Your task to perform on an android device: Open calendar and show me the fourth week of next month Image 0: 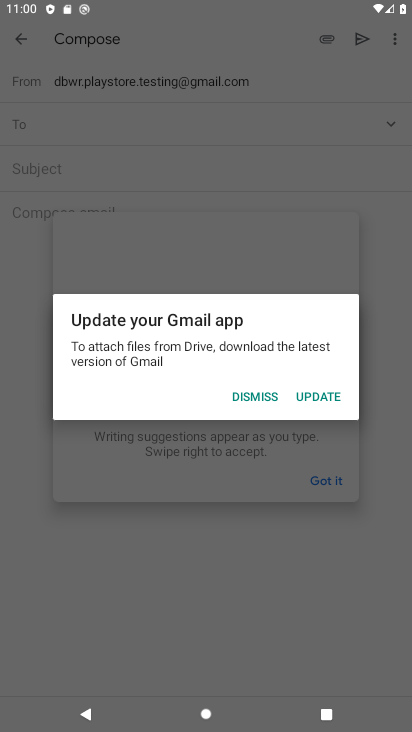
Step 0: press home button
Your task to perform on an android device: Open calendar and show me the fourth week of next month Image 1: 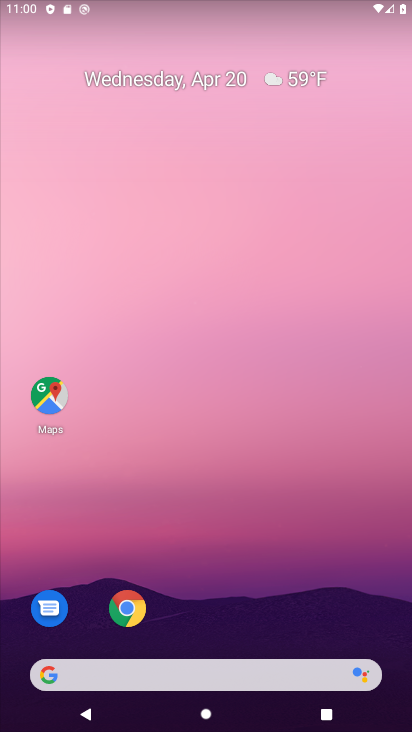
Step 1: drag from (201, 606) to (238, 134)
Your task to perform on an android device: Open calendar and show me the fourth week of next month Image 2: 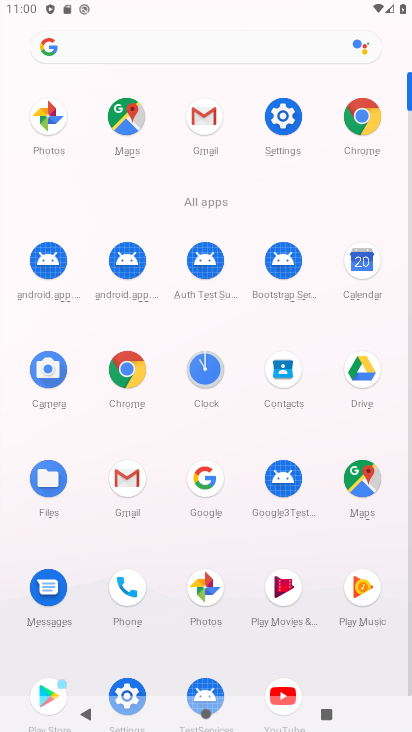
Step 2: click (363, 257)
Your task to perform on an android device: Open calendar and show me the fourth week of next month Image 3: 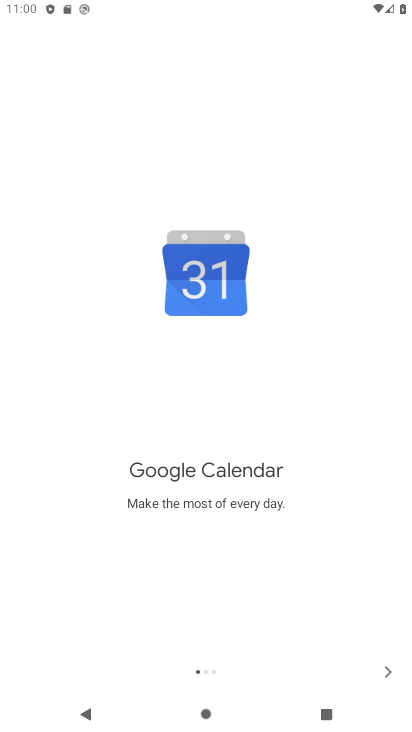
Step 3: click (380, 662)
Your task to perform on an android device: Open calendar and show me the fourth week of next month Image 4: 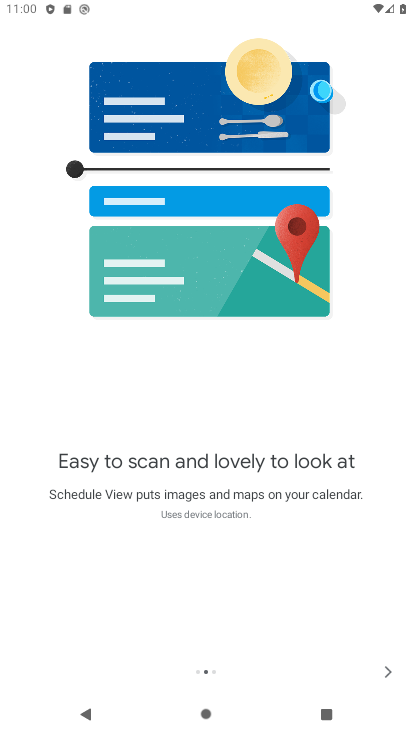
Step 4: click (380, 662)
Your task to perform on an android device: Open calendar and show me the fourth week of next month Image 5: 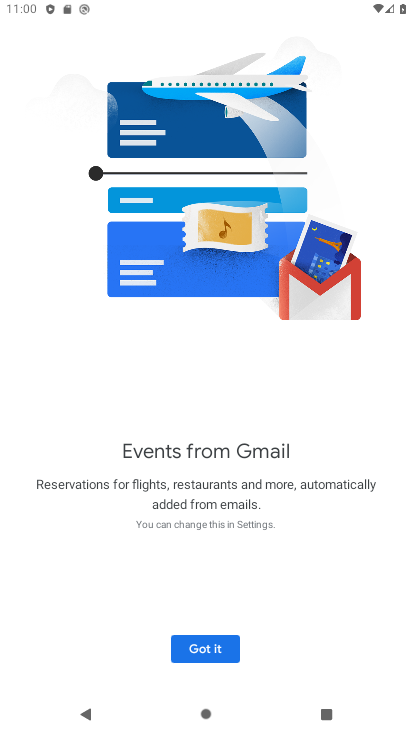
Step 5: click (218, 645)
Your task to perform on an android device: Open calendar and show me the fourth week of next month Image 6: 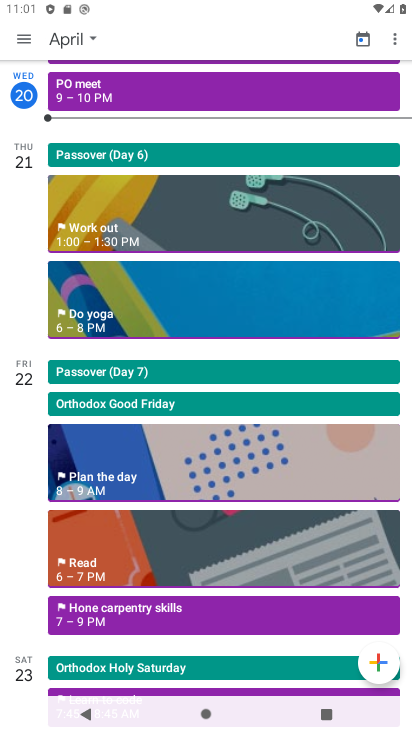
Step 6: click (81, 37)
Your task to perform on an android device: Open calendar and show me the fourth week of next month Image 7: 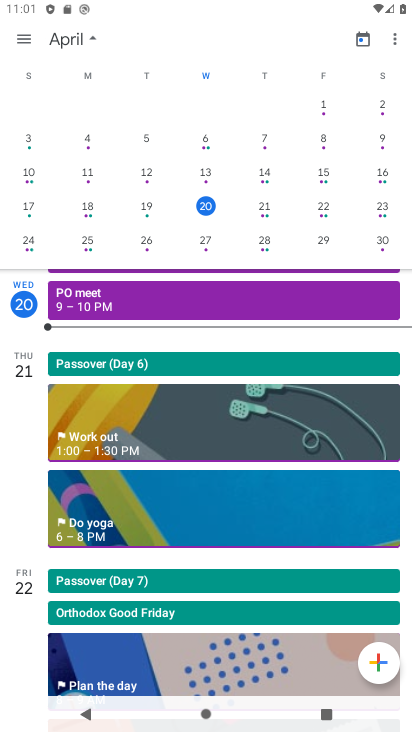
Step 7: drag from (391, 253) to (28, 198)
Your task to perform on an android device: Open calendar and show me the fourth week of next month Image 8: 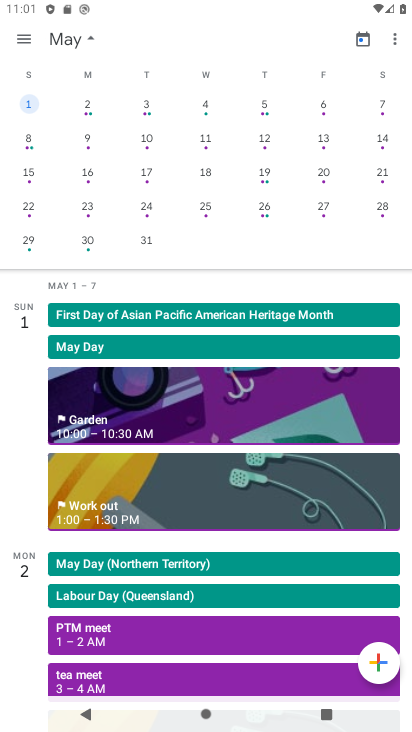
Step 8: click (144, 209)
Your task to perform on an android device: Open calendar and show me the fourth week of next month Image 9: 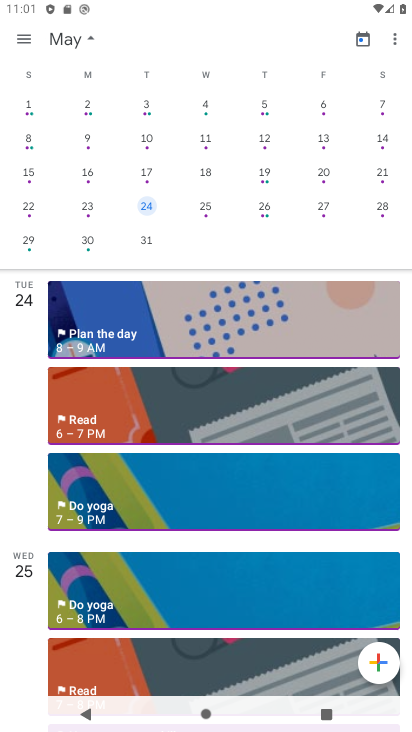
Step 9: task complete